Your task to perform on an android device: open app "Instagram" (install if not already installed) Image 0: 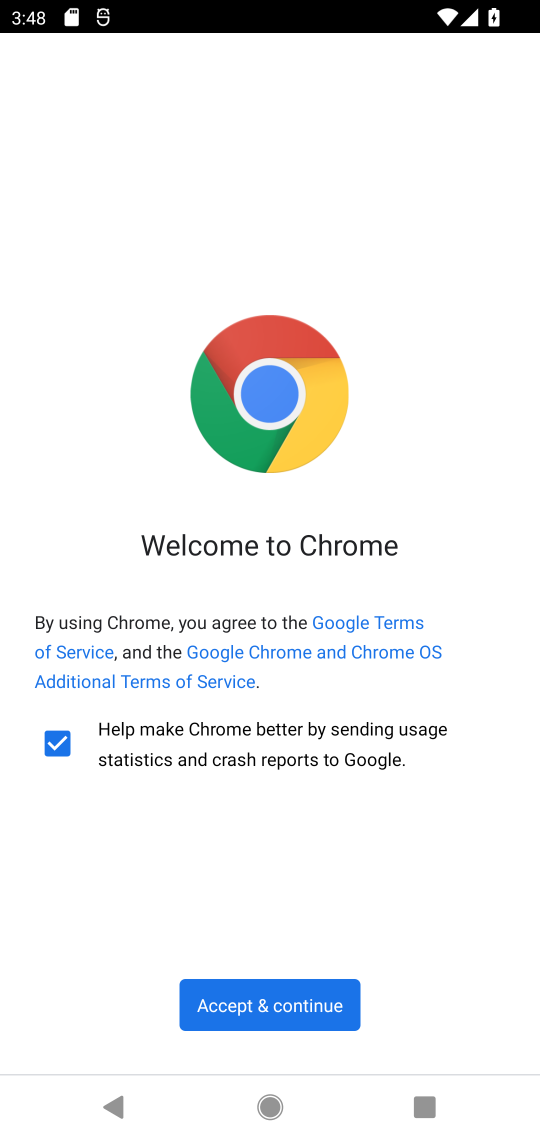
Step 0: press home button
Your task to perform on an android device: open app "Instagram" (install if not already installed) Image 1: 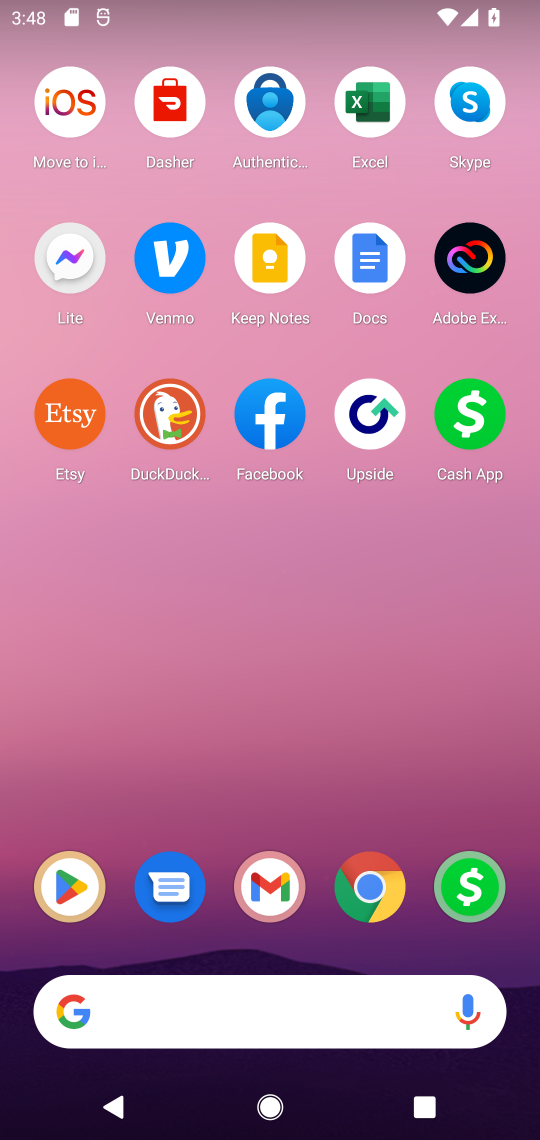
Step 1: click (82, 885)
Your task to perform on an android device: open app "Instagram" (install if not already installed) Image 2: 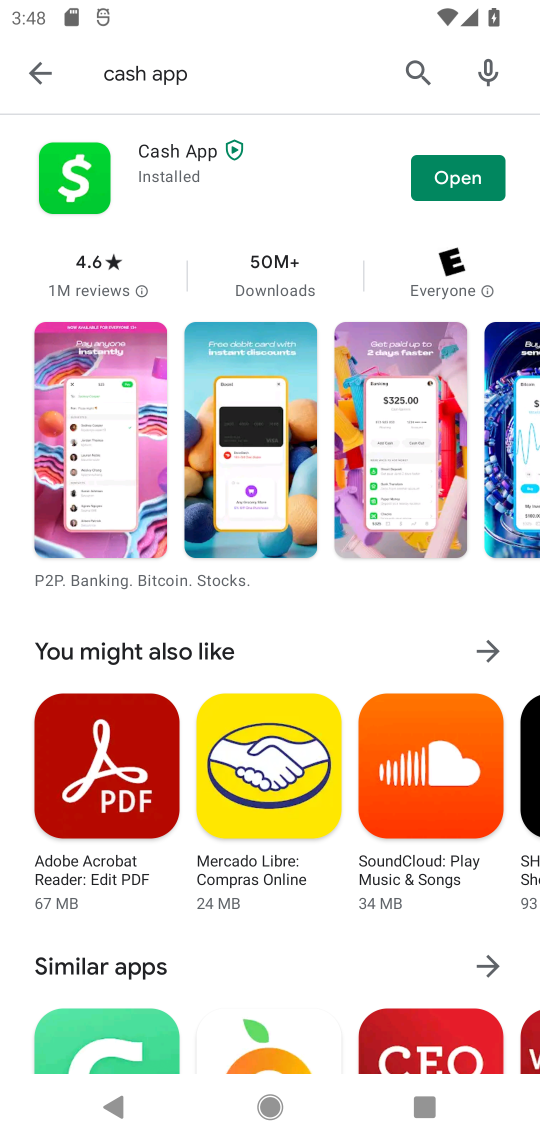
Step 2: click (37, 75)
Your task to perform on an android device: open app "Instagram" (install if not already installed) Image 3: 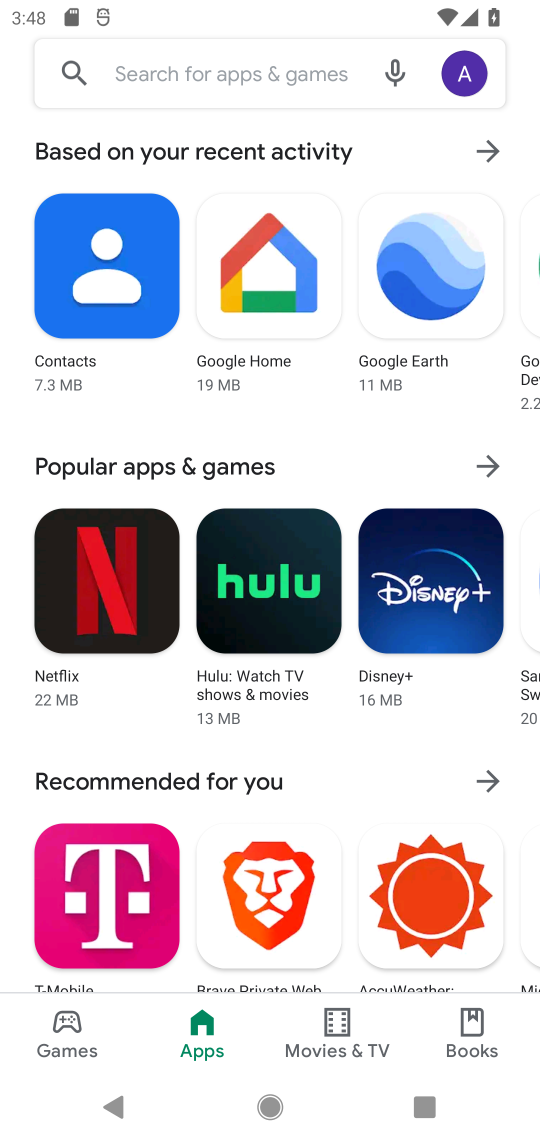
Step 3: click (168, 68)
Your task to perform on an android device: open app "Instagram" (install if not already installed) Image 4: 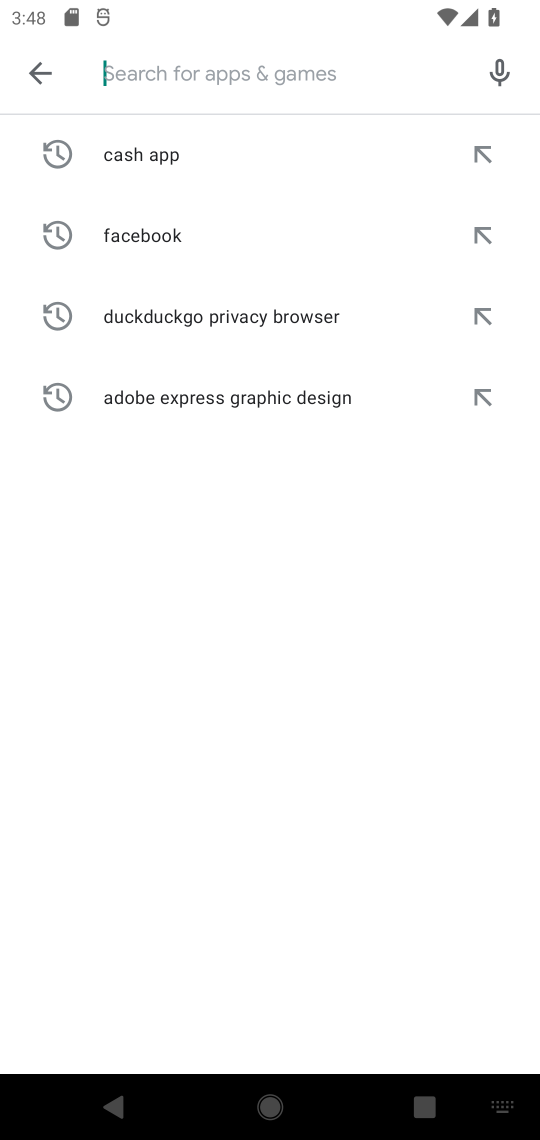
Step 4: type "Instagram"
Your task to perform on an android device: open app "Instagram" (install if not already installed) Image 5: 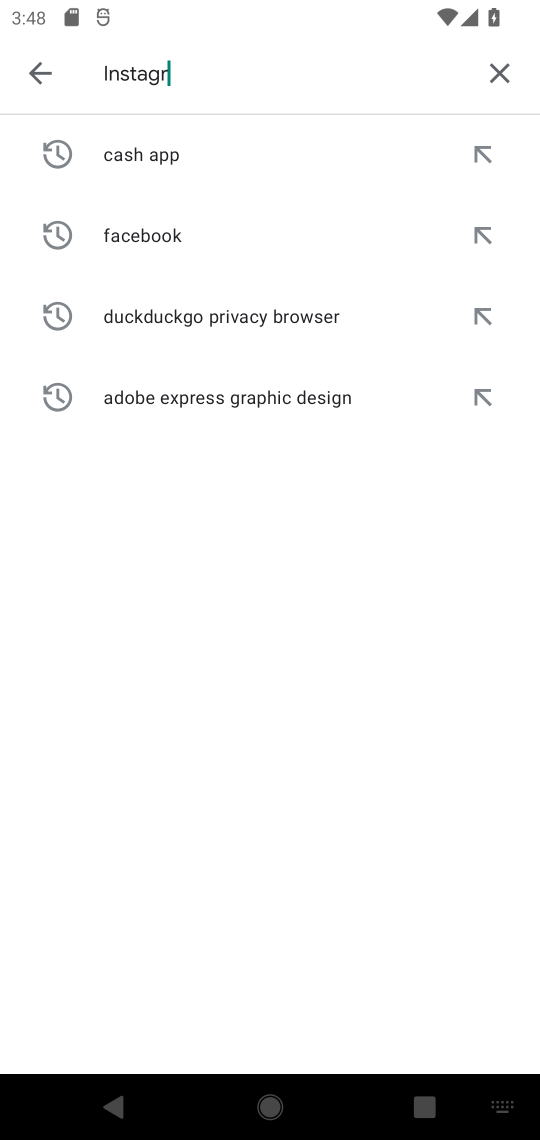
Step 5: type ""
Your task to perform on an android device: open app "Instagram" (install if not already installed) Image 6: 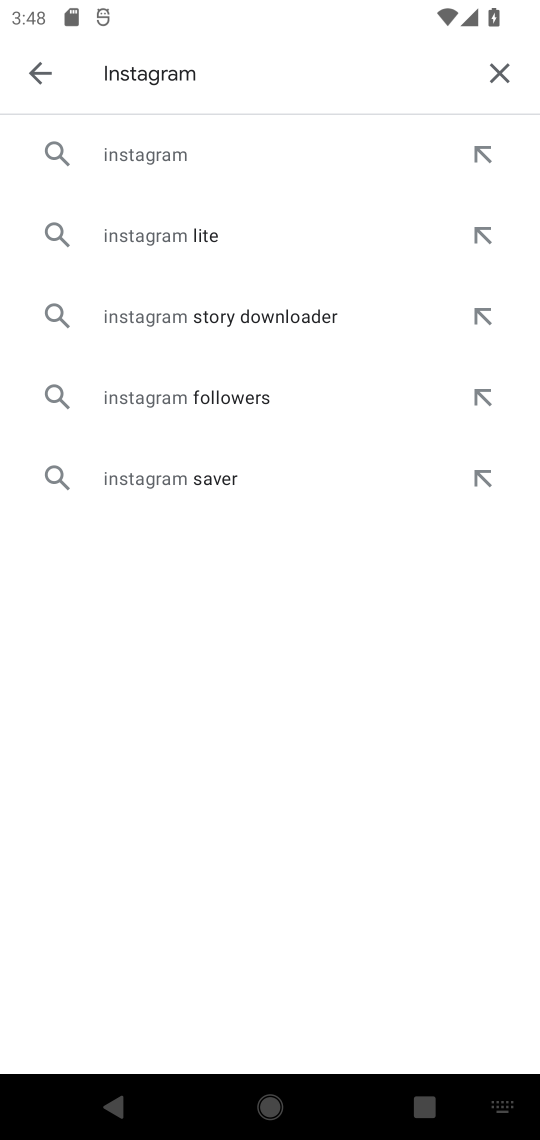
Step 6: click (247, 164)
Your task to perform on an android device: open app "Instagram" (install if not already installed) Image 7: 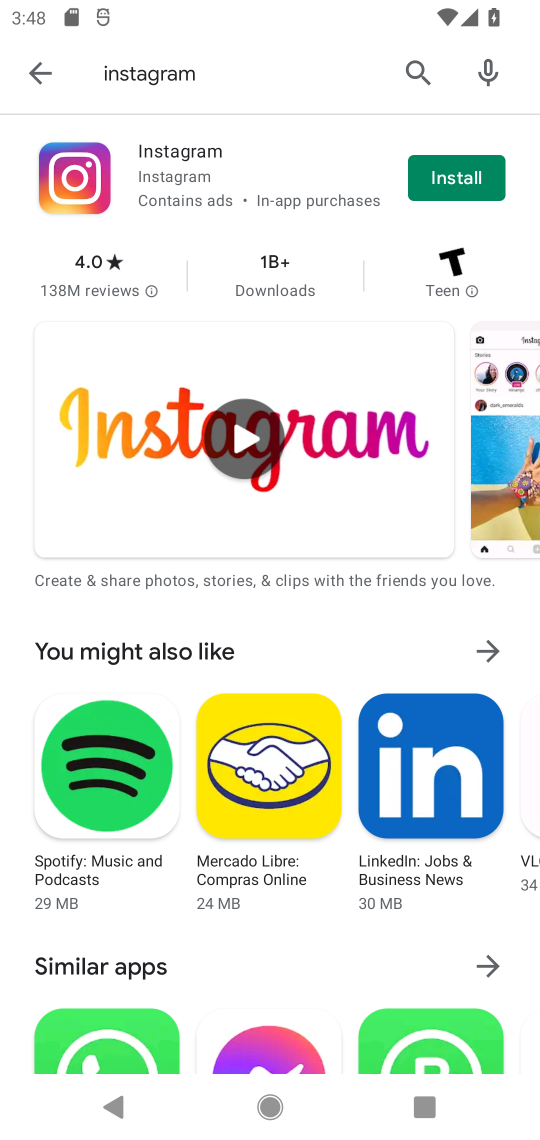
Step 7: click (475, 169)
Your task to perform on an android device: open app "Instagram" (install if not already installed) Image 8: 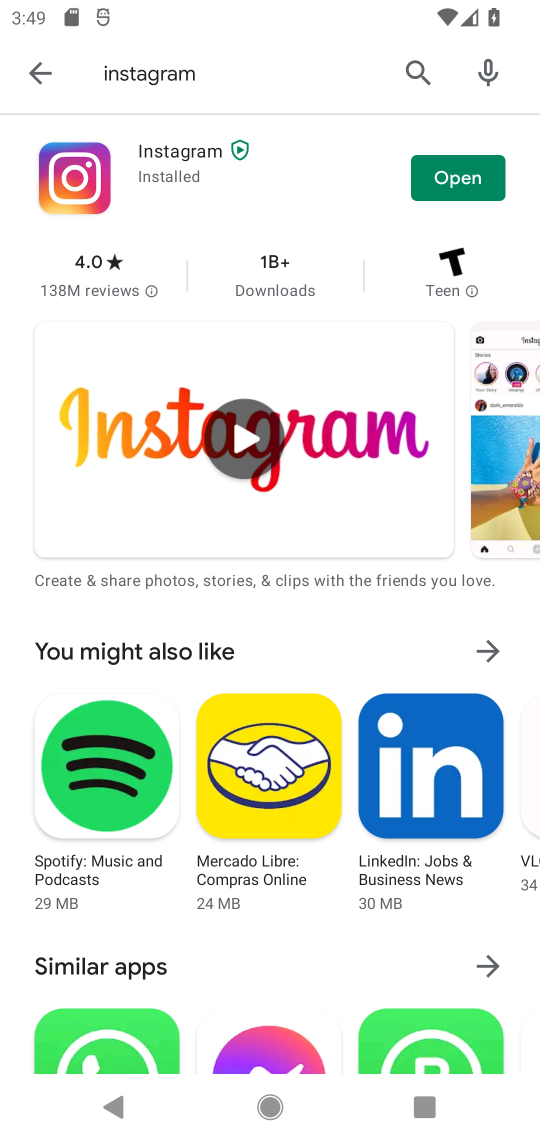
Step 8: task complete